Your task to perform on an android device: read, delete, or share a saved page in the chrome app Image 0: 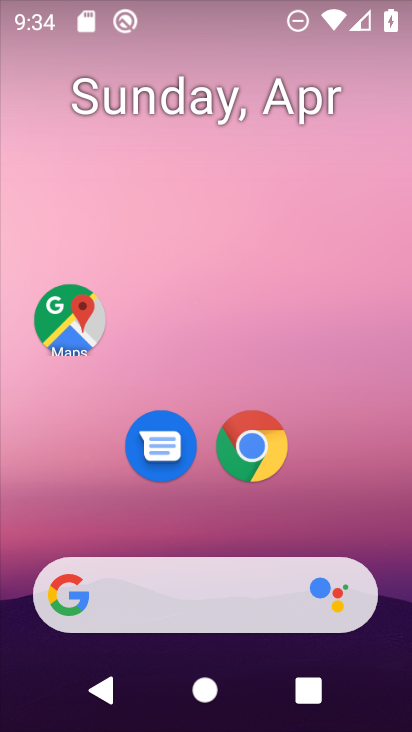
Step 0: drag from (219, 504) to (260, 206)
Your task to perform on an android device: read, delete, or share a saved page in the chrome app Image 1: 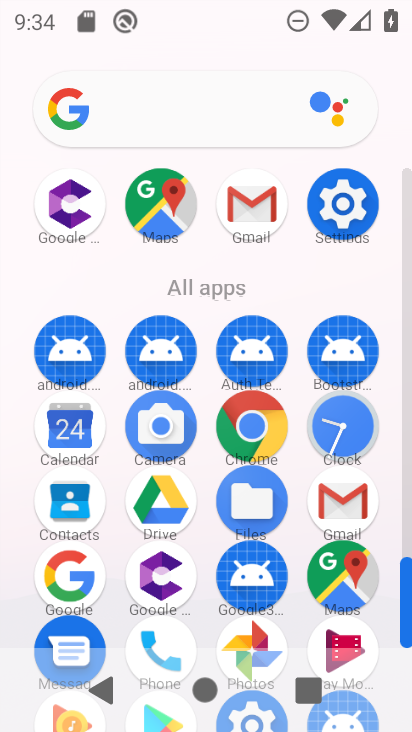
Step 1: click (266, 415)
Your task to perform on an android device: read, delete, or share a saved page in the chrome app Image 2: 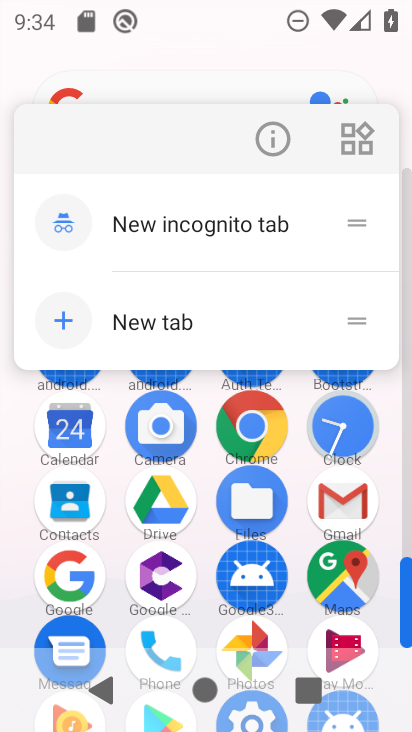
Step 2: click (276, 130)
Your task to perform on an android device: read, delete, or share a saved page in the chrome app Image 3: 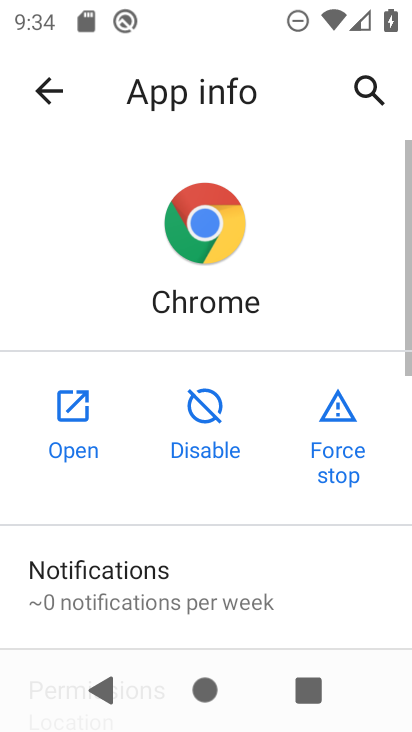
Step 3: click (76, 391)
Your task to perform on an android device: read, delete, or share a saved page in the chrome app Image 4: 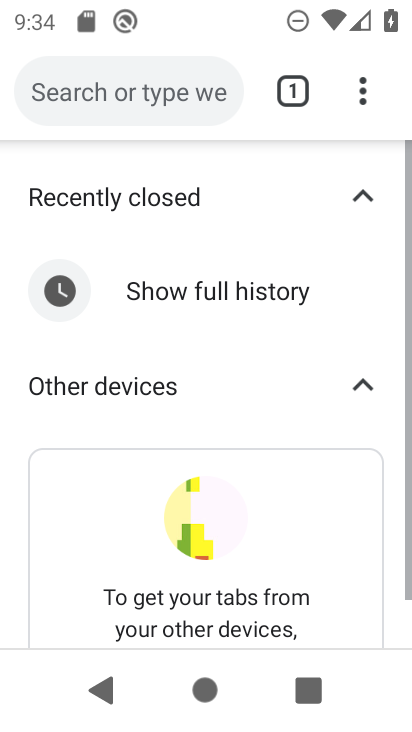
Step 4: task complete